Your task to perform on an android device: create a new album in the google photos Image 0: 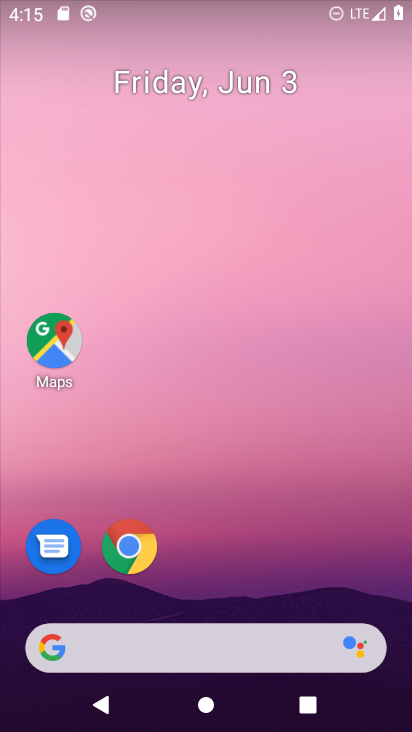
Step 0: drag from (232, 552) to (240, 0)
Your task to perform on an android device: create a new album in the google photos Image 1: 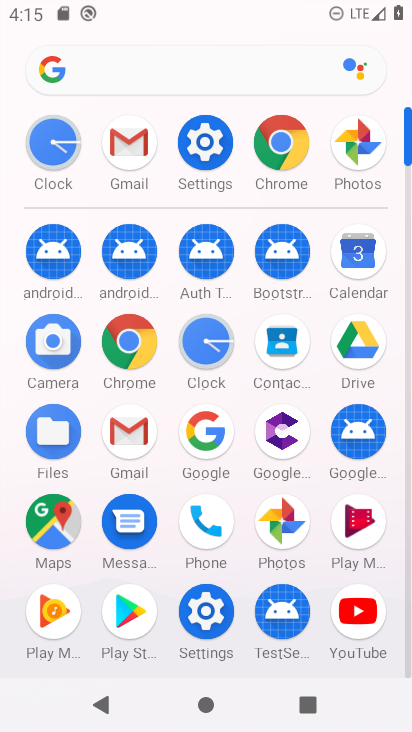
Step 1: click (356, 144)
Your task to perform on an android device: create a new album in the google photos Image 2: 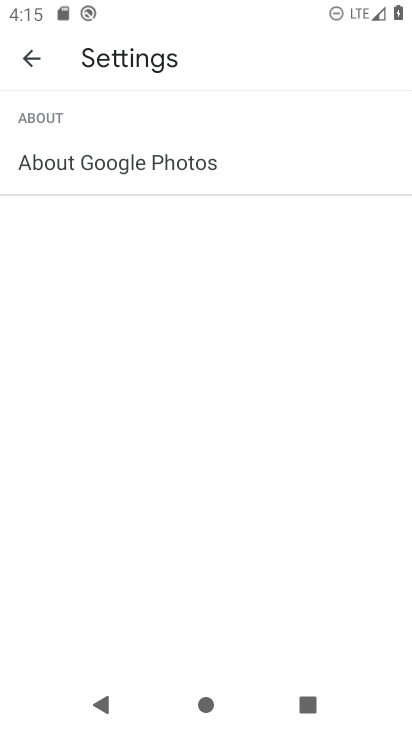
Step 2: click (27, 60)
Your task to perform on an android device: create a new album in the google photos Image 3: 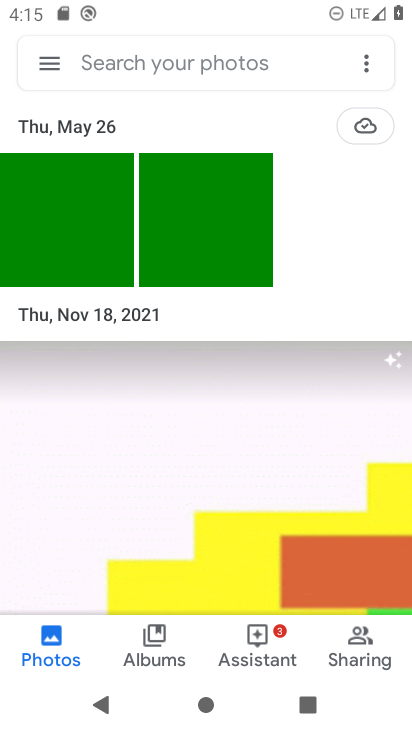
Step 3: click (148, 645)
Your task to perform on an android device: create a new album in the google photos Image 4: 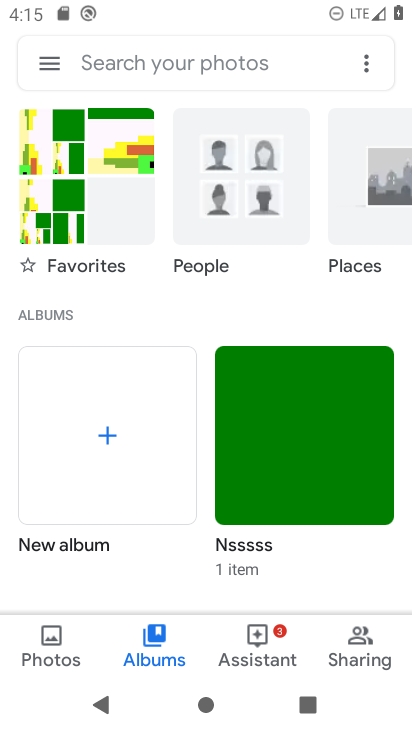
Step 4: click (110, 431)
Your task to perform on an android device: create a new album in the google photos Image 5: 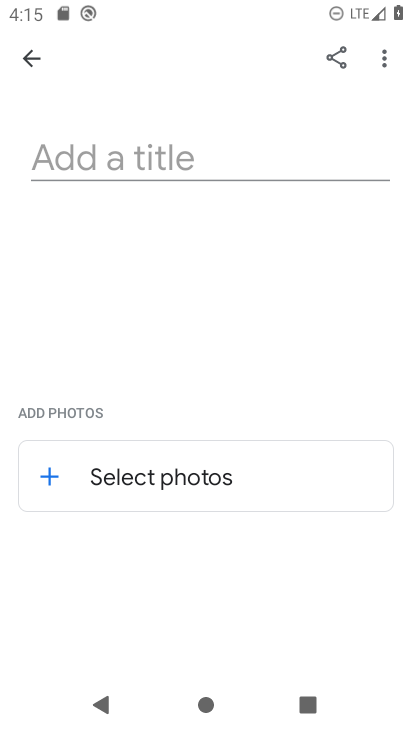
Step 5: click (219, 160)
Your task to perform on an android device: create a new album in the google photos Image 6: 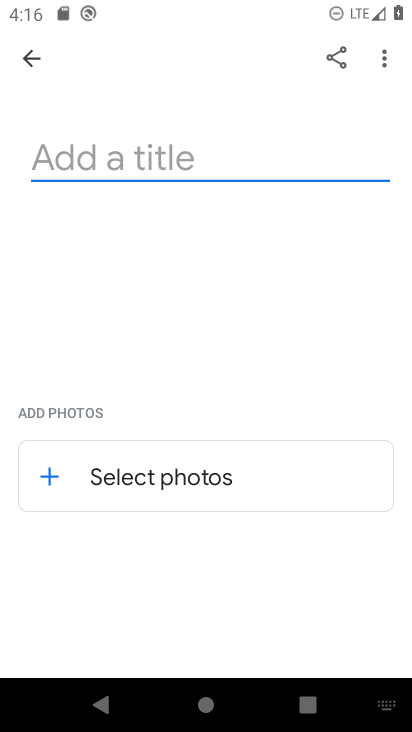
Step 6: type "Natraj Shiva Mahadeva"
Your task to perform on an android device: create a new album in the google photos Image 7: 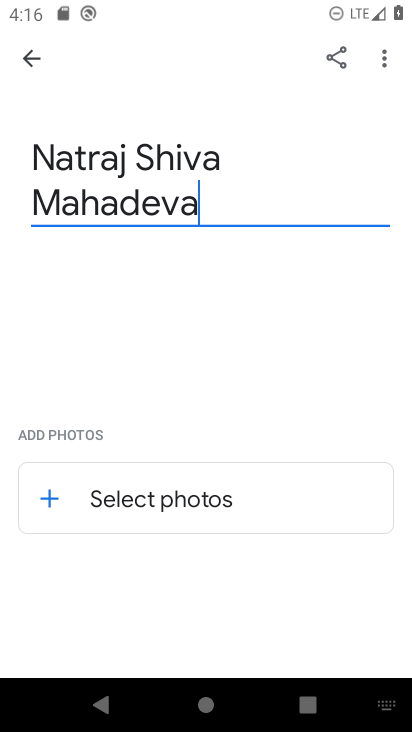
Step 7: click (49, 495)
Your task to perform on an android device: create a new album in the google photos Image 8: 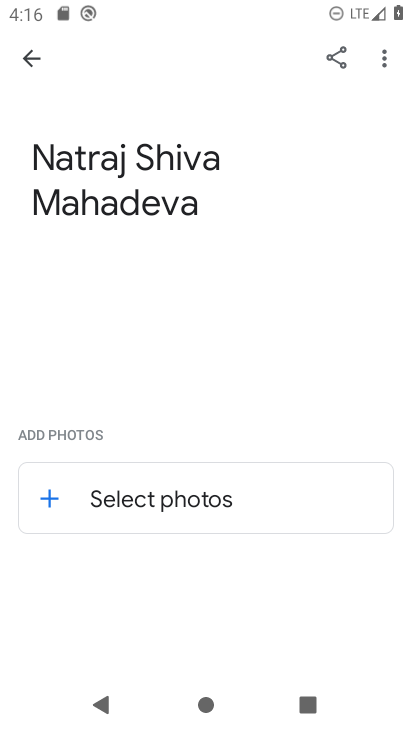
Step 8: click (51, 486)
Your task to perform on an android device: create a new album in the google photos Image 9: 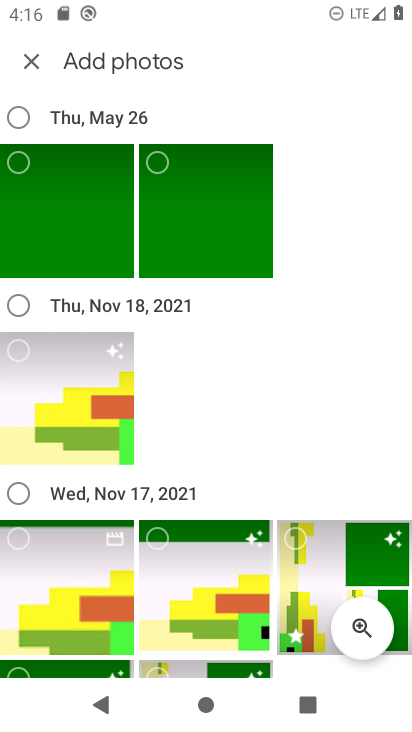
Step 9: click (21, 339)
Your task to perform on an android device: create a new album in the google photos Image 10: 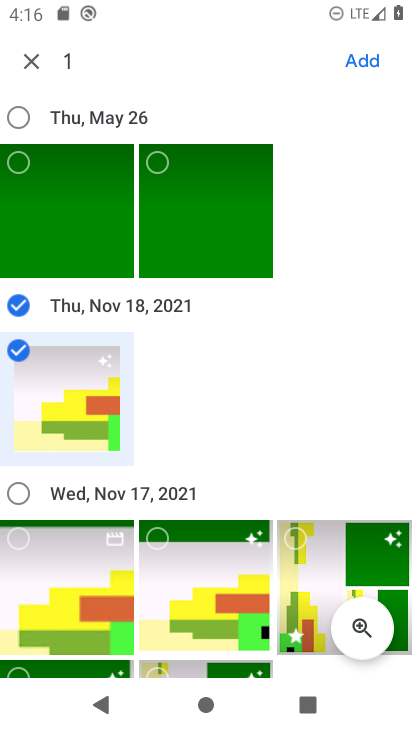
Step 10: click (364, 52)
Your task to perform on an android device: create a new album in the google photos Image 11: 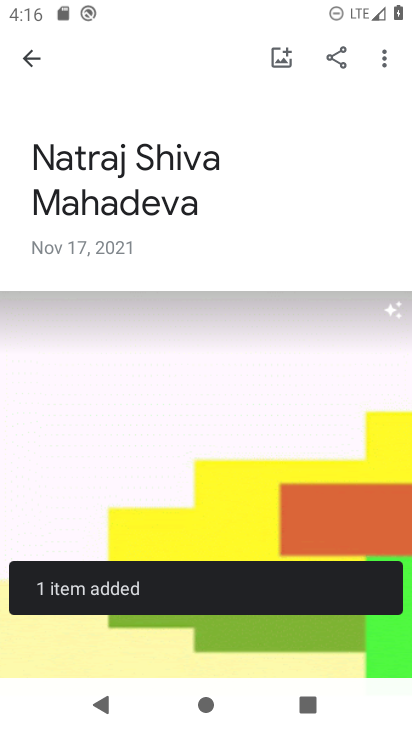
Step 11: task complete